Your task to perform on an android device: turn off notifications in google photos Image 0: 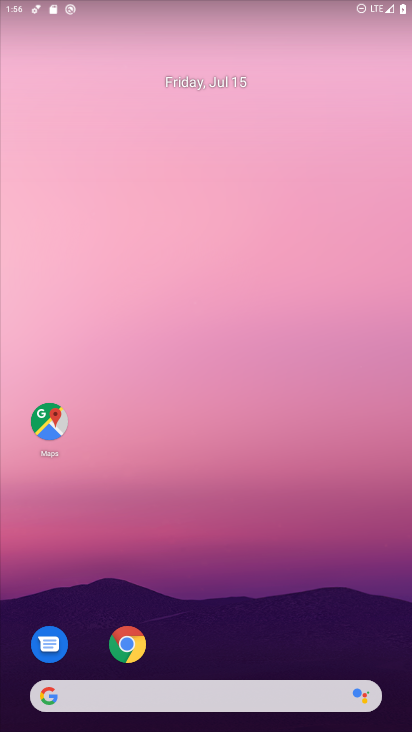
Step 0: drag from (32, 509) to (284, 50)
Your task to perform on an android device: turn off notifications in google photos Image 1: 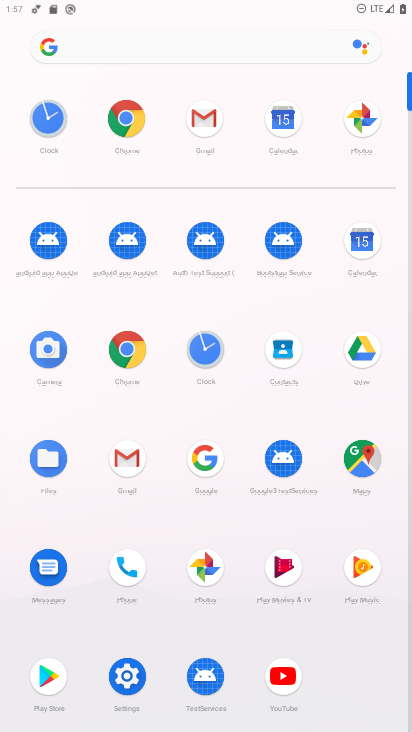
Step 1: click (135, 668)
Your task to perform on an android device: turn off notifications in google photos Image 2: 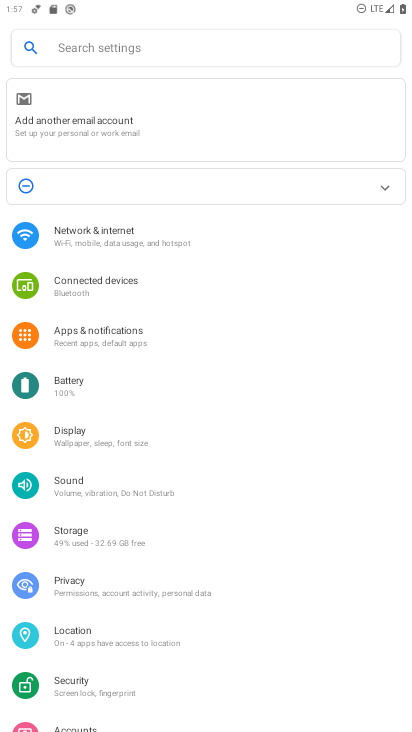
Step 2: click (160, 343)
Your task to perform on an android device: turn off notifications in google photos Image 3: 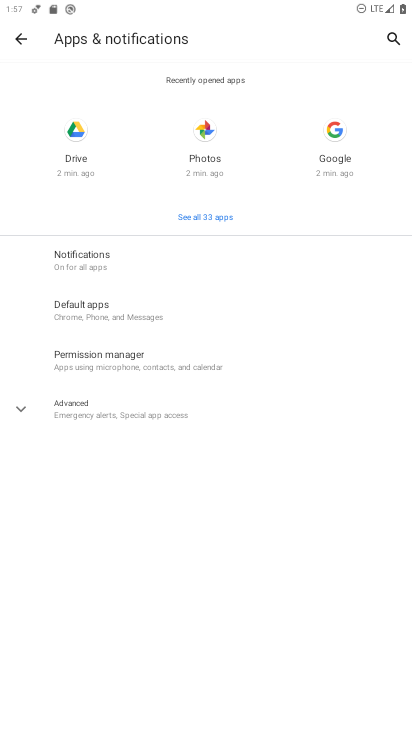
Step 3: click (122, 259)
Your task to perform on an android device: turn off notifications in google photos Image 4: 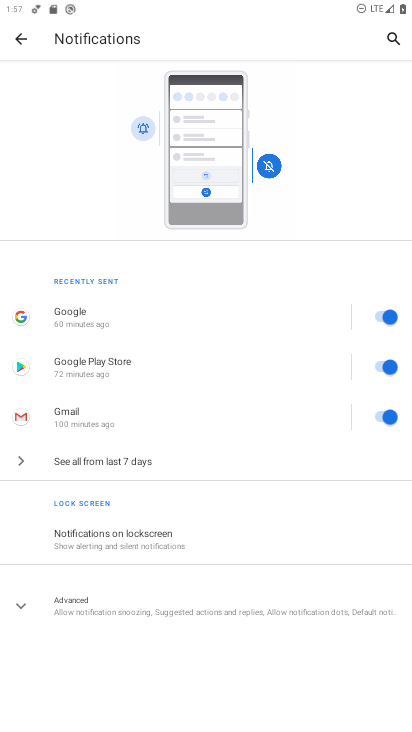
Step 4: press back button
Your task to perform on an android device: turn off notifications in google photos Image 5: 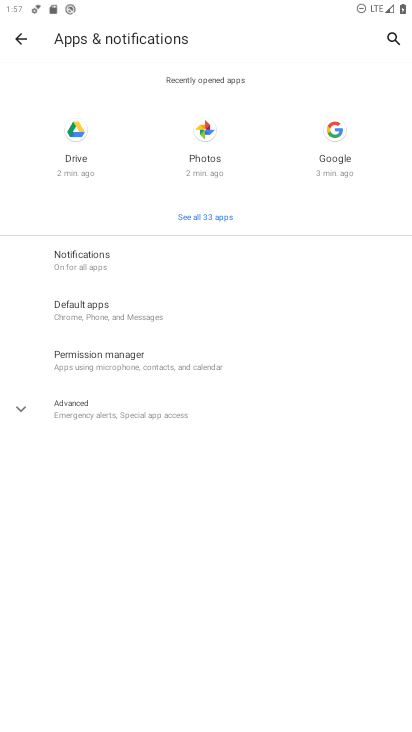
Step 5: click (206, 135)
Your task to perform on an android device: turn off notifications in google photos Image 6: 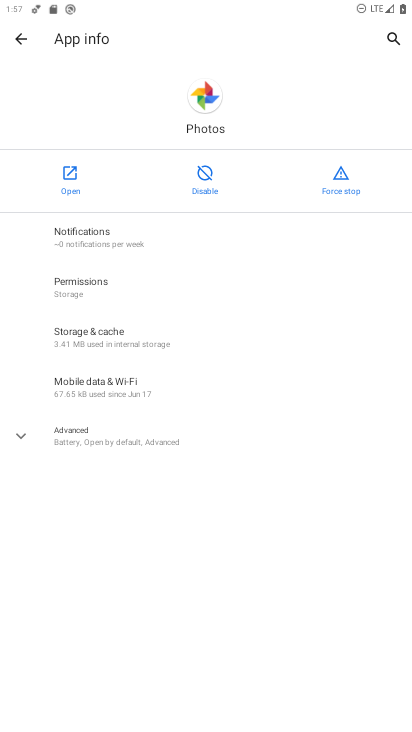
Step 6: click (139, 245)
Your task to perform on an android device: turn off notifications in google photos Image 7: 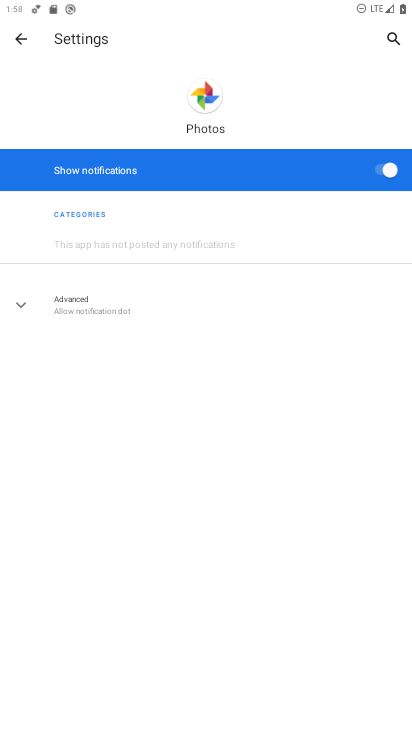
Step 7: task complete